Your task to perform on an android device: Open the web browser Image 0: 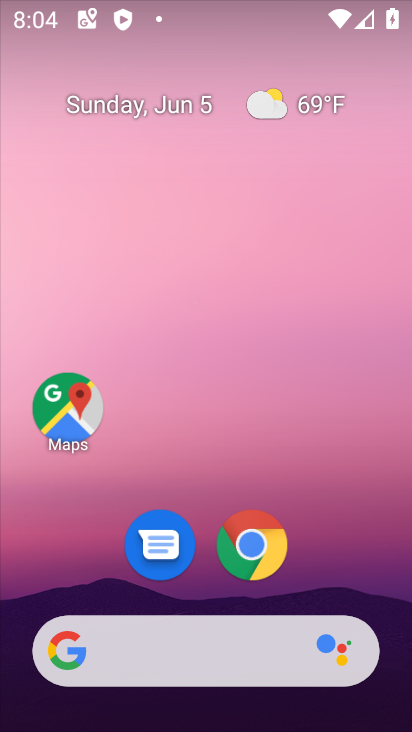
Step 0: drag from (364, 583) to (379, 159)
Your task to perform on an android device: Open the web browser Image 1: 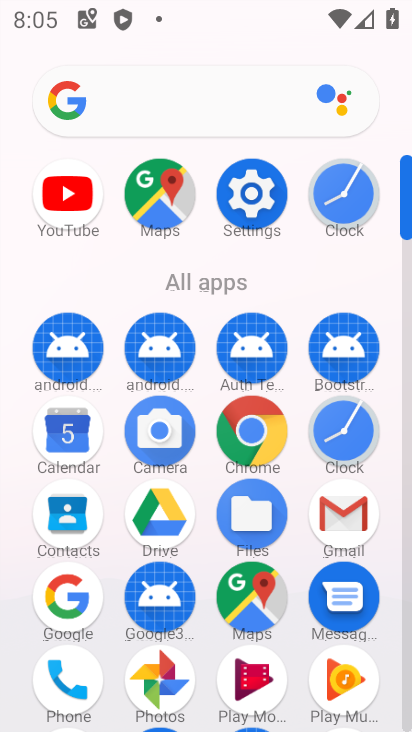
Step 1: click (264, 435)
Your task to perform on an android device: Open the web browser Image 2: 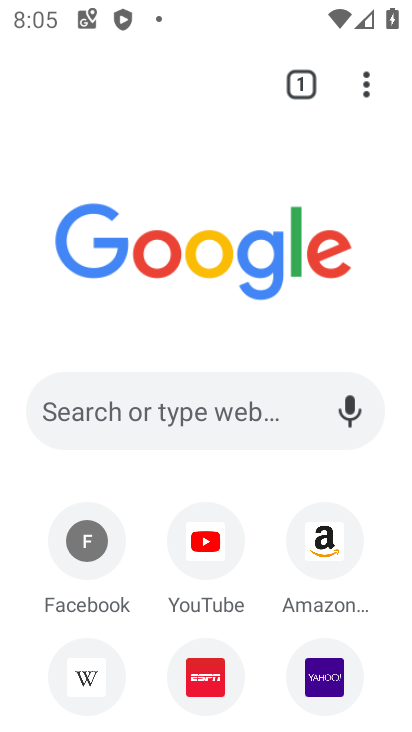
Step 2: task complete